Your task to perform on an android device: create a new album in the google photos Image 0: 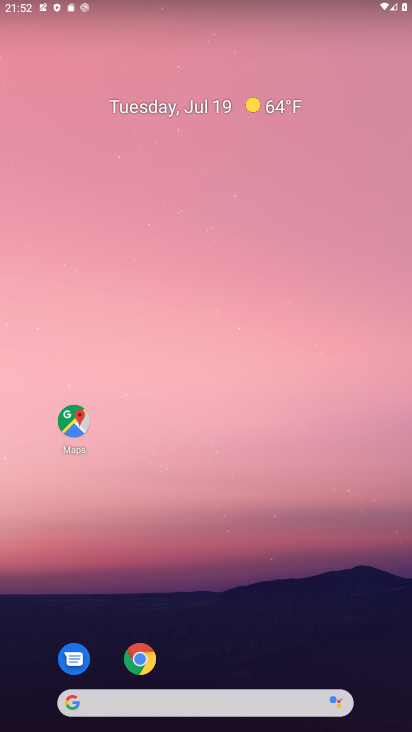
Step 0: drag from (191, 662) to (160, 172)
Your task to perform on an android device: create a new album in the google photos Image 1: 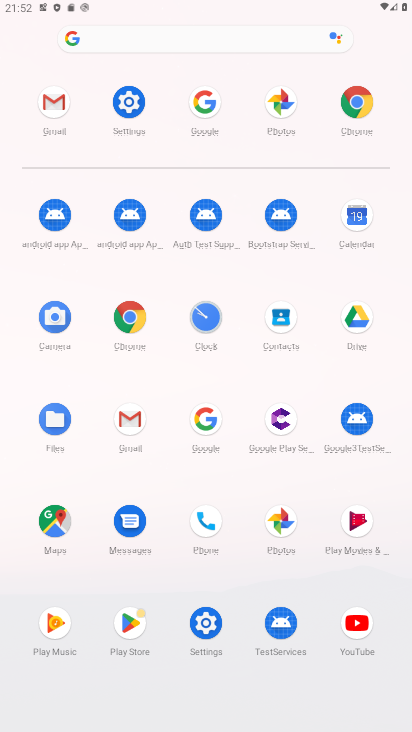
Step 1: click (272, 88)
Your task to perform on an android device: create a new album in the google photos Image 2: 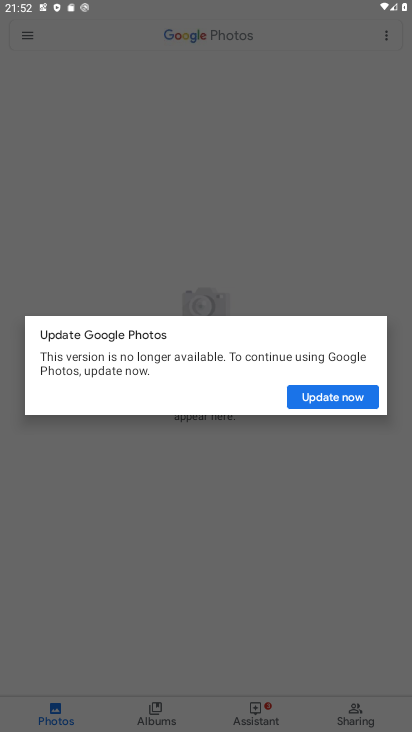
Step 2: click (318, 400)
Your task to perform on an android device: create a new album in the google photos Image 3: 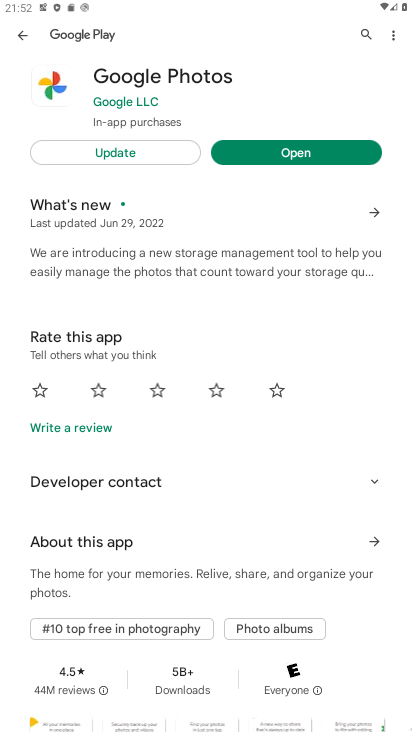
Step 3: click (303, 158)
Your task to perform on an android device: create a new album in the google photos Image 4: 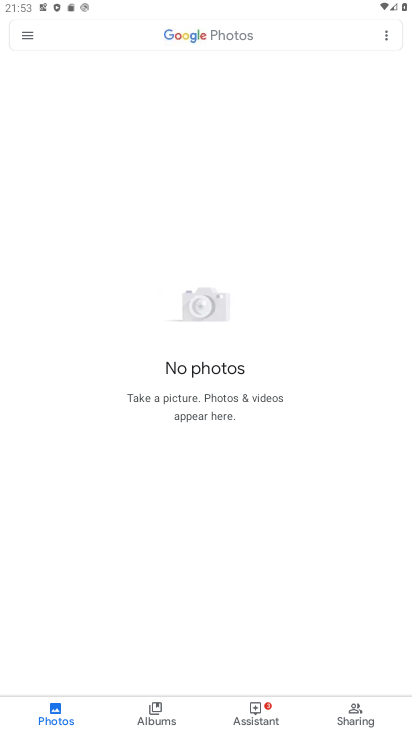
Step 4: task complete